Your task to perform on an android device: What's the weather today? Image 0: 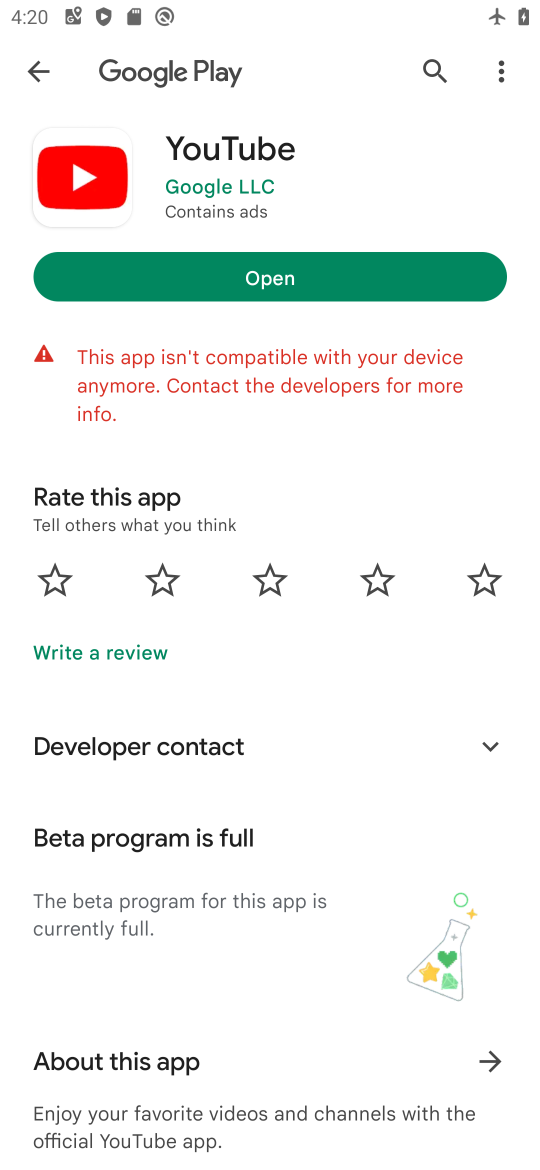
Step 0: press home button
Your task to perform on an android device: What's the weather today? Image 1: 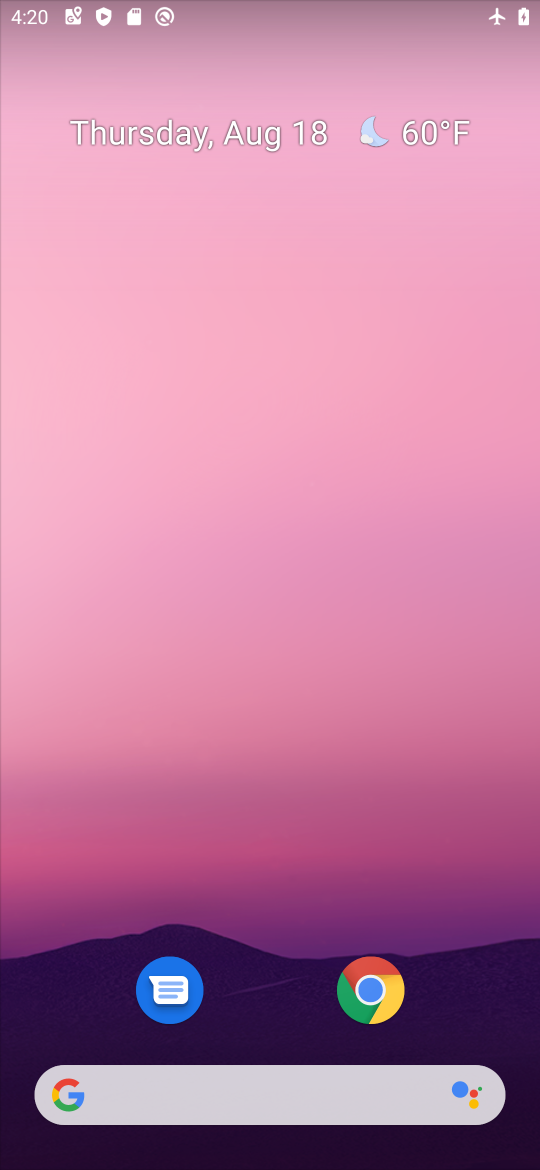
Step 1: click (449, 121)
Your task to perform on an android device: What's the weather today? Image 2: 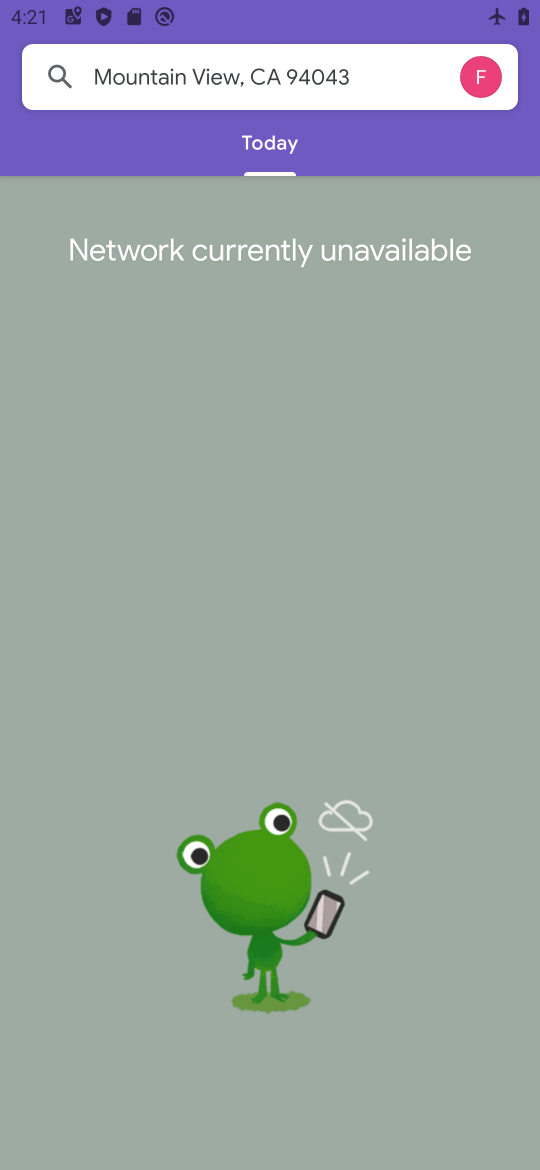
Step 2: task complete